Your task to perform on an android device: Go to wifi settings Image 0: 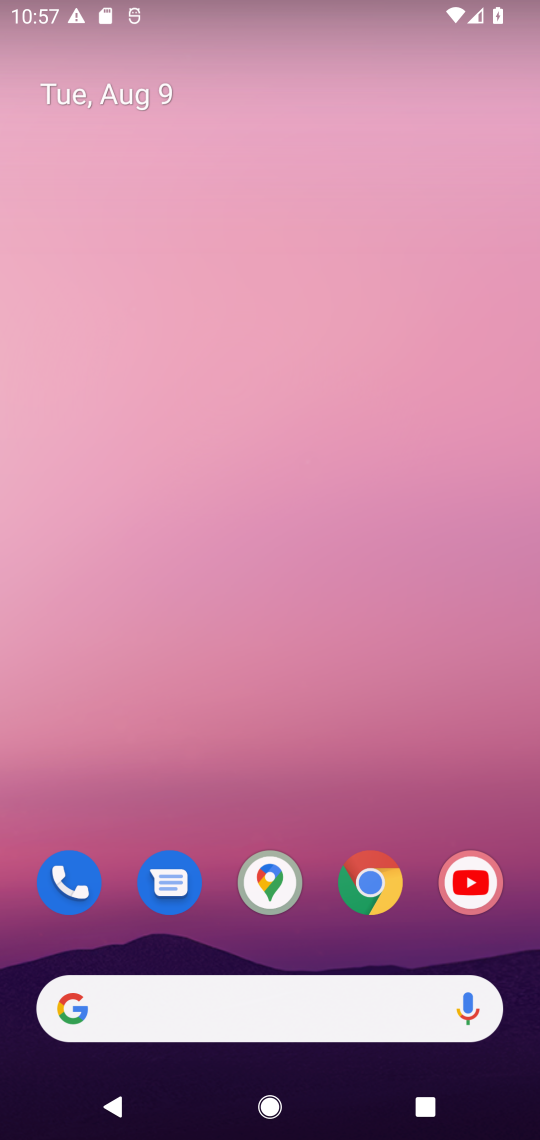
Step 0: press back button
Your task to perform on an android device: Go to wifi settings Image 1: 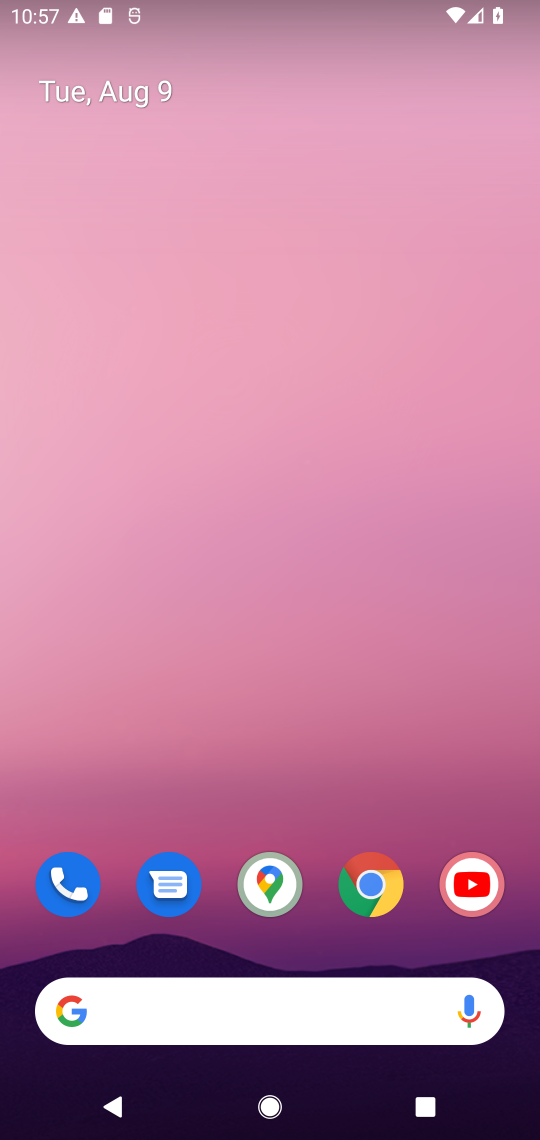
Step 1: drag from (240, 224) to (315, 308)
Your task to perform on an android device: Go to wifi settings Image 2: 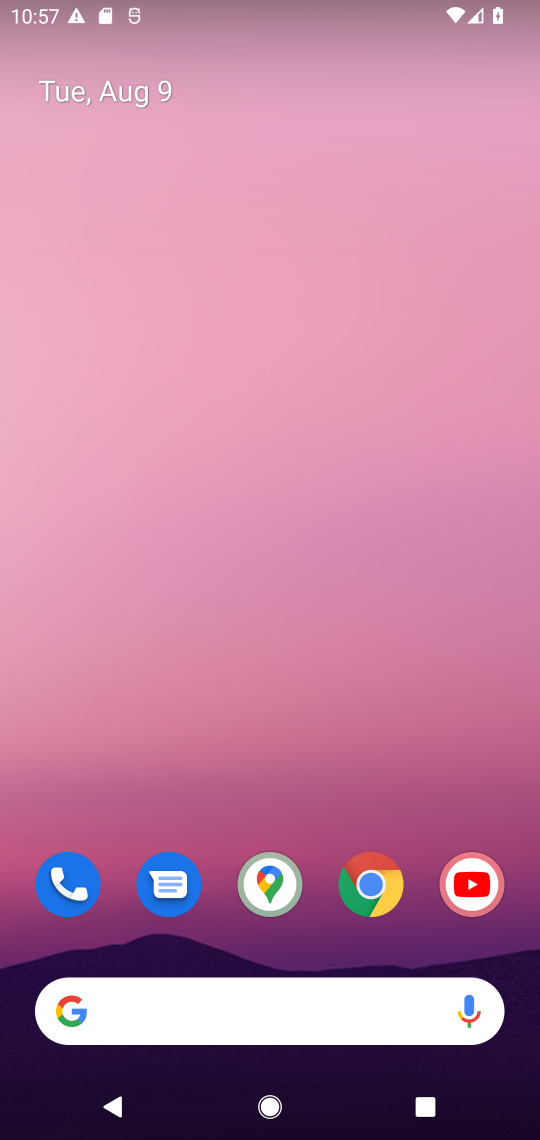
Step 2: drag from (325, 644) to (281, 273)
Your task to perform on an android device: Go to wifi settings Image 3: 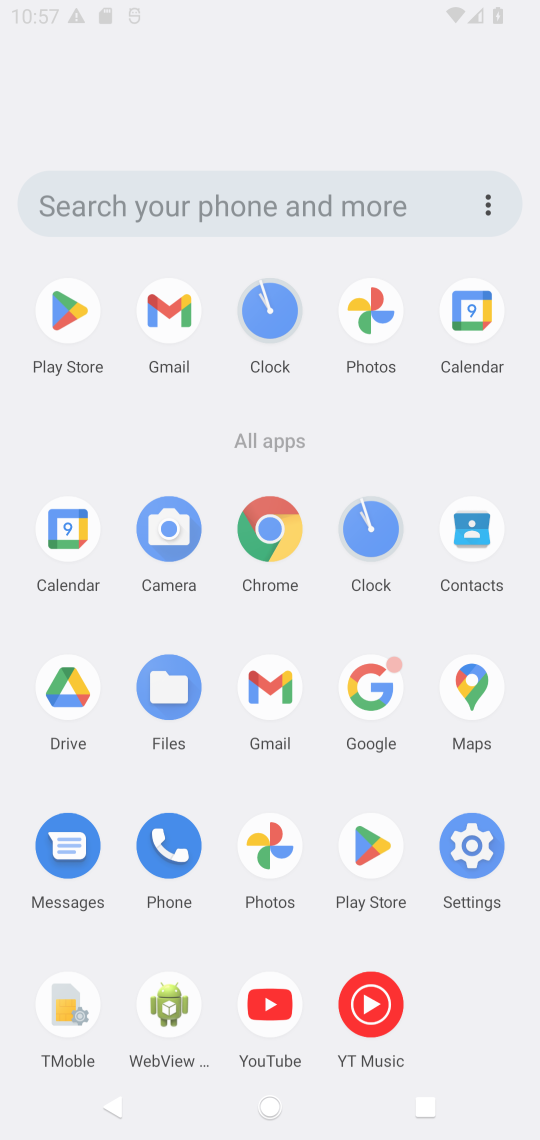
Step 3: drag from (314, 771) to (234, 345)
Your task to perform on an android device: Go to wifi settings Image 4: 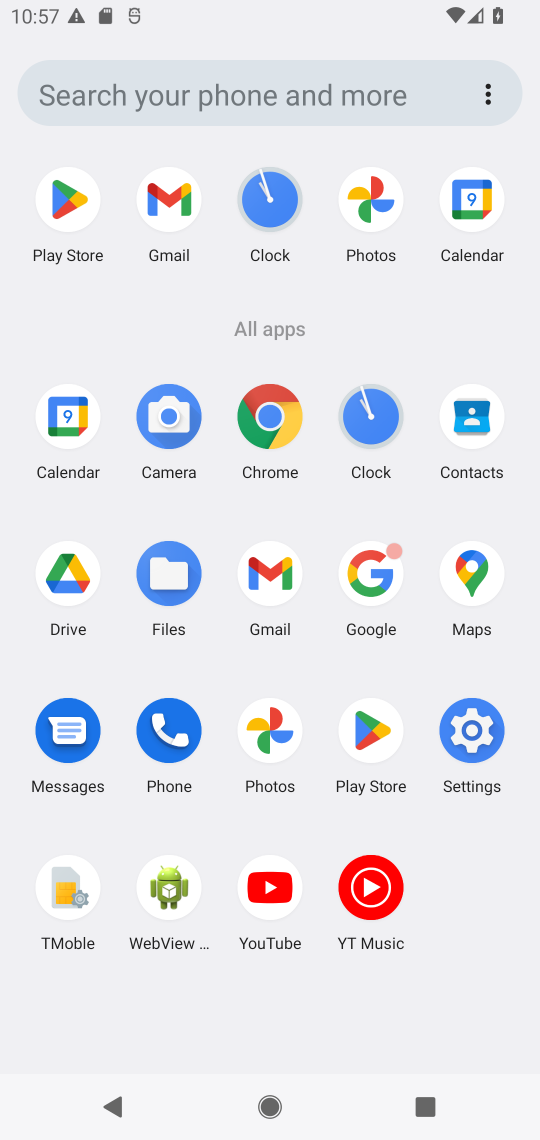
Step 4: click (461, 716)
Your task to perform on an android device: Go to wifi settings Image 5: 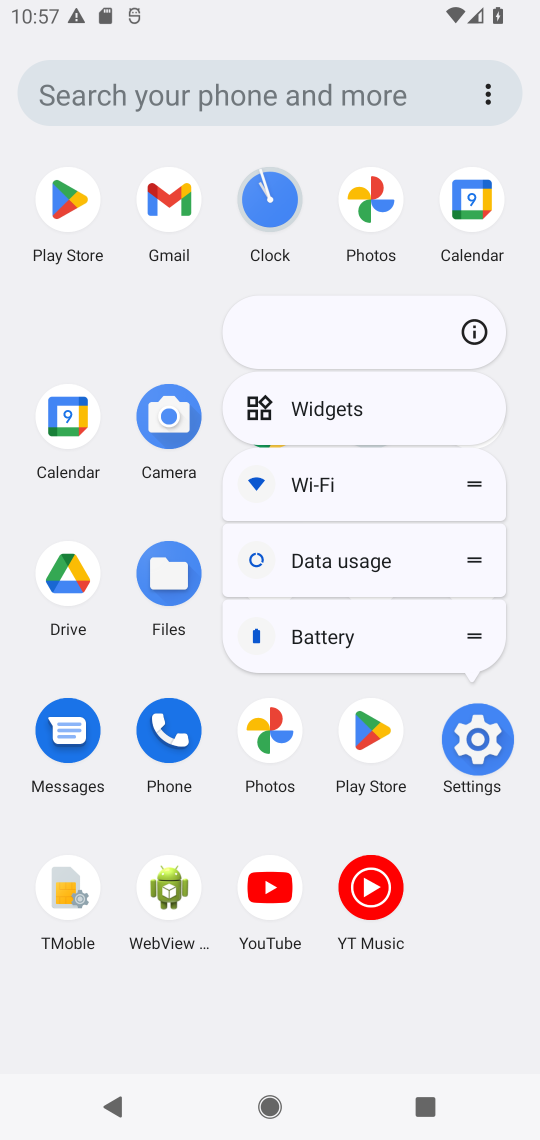
Step 5: click (466, 727)
Your task to perform on an android device: Go to wifi settings Image 6: 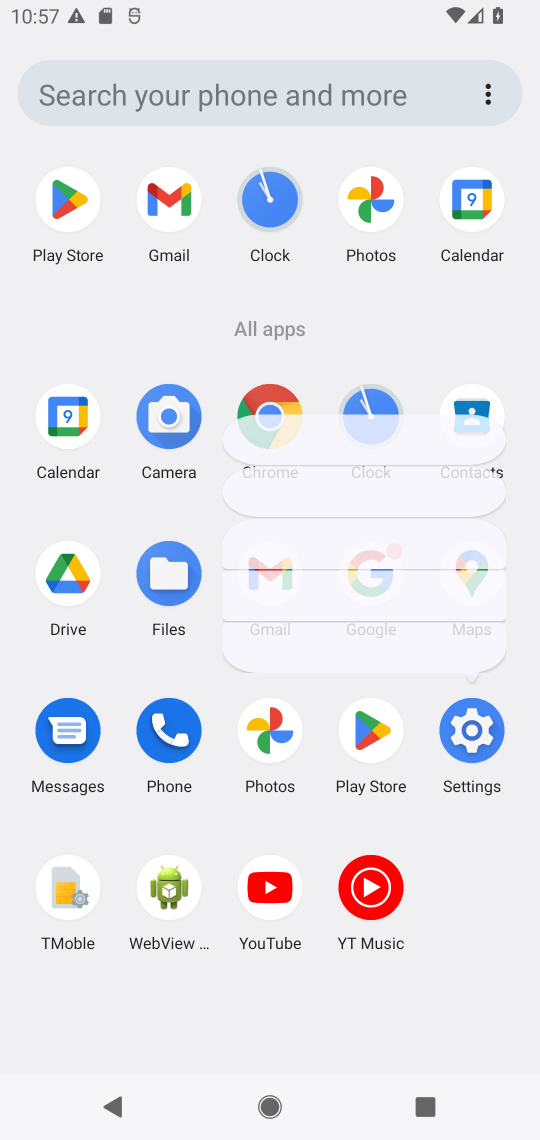
Step 6: click (475, 735)
Your task to perform on an android device: Go to wifi settings Image 7: 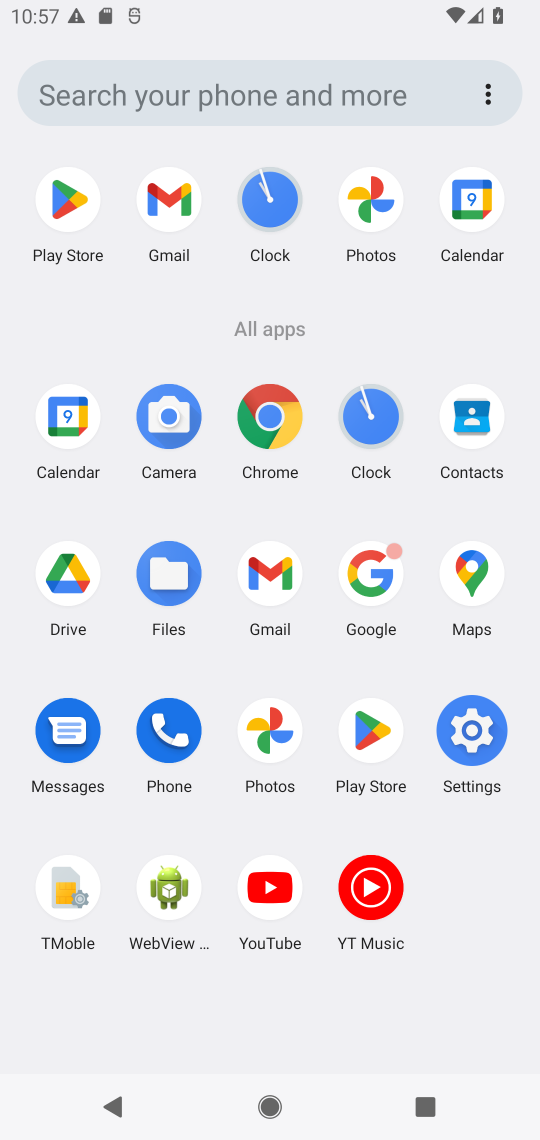
Step 7: click (490, 737)
Your task to perform on an android device: Go to wifi settings Image 8: 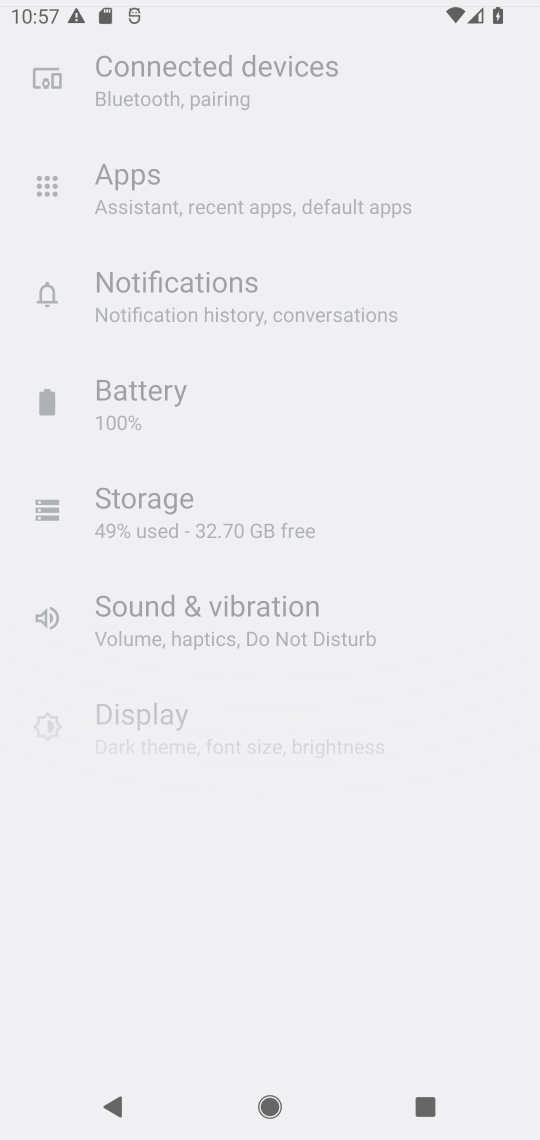
Step 8: click (503, 765)
Your task to perform on an android device: Go to wifi settings Image 9: 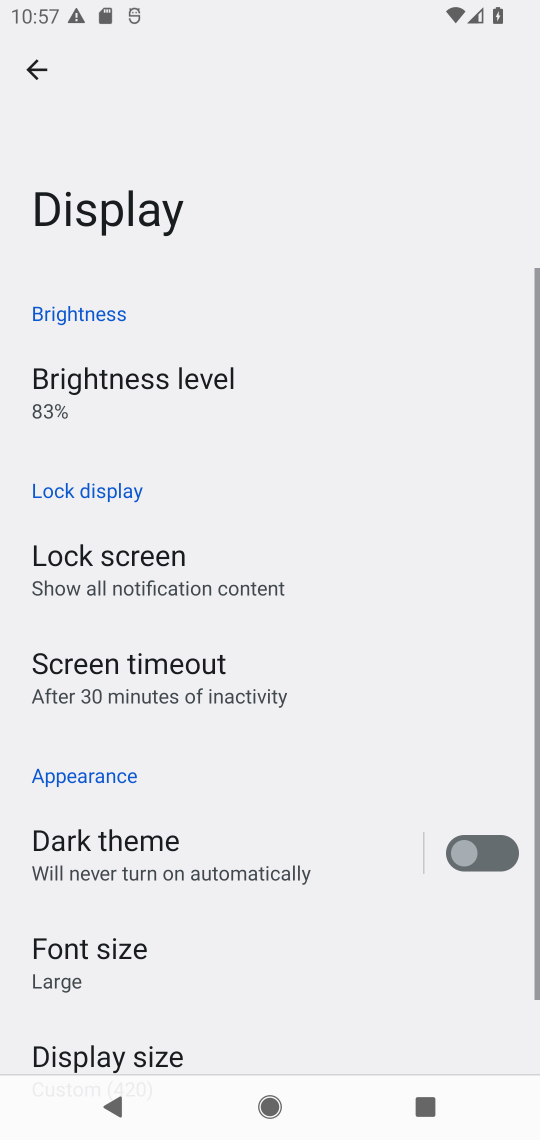
Step 9: drag from (122, 282) to (172, 883)
Your task to perform on an android device: Go to wifi settings Image 10: 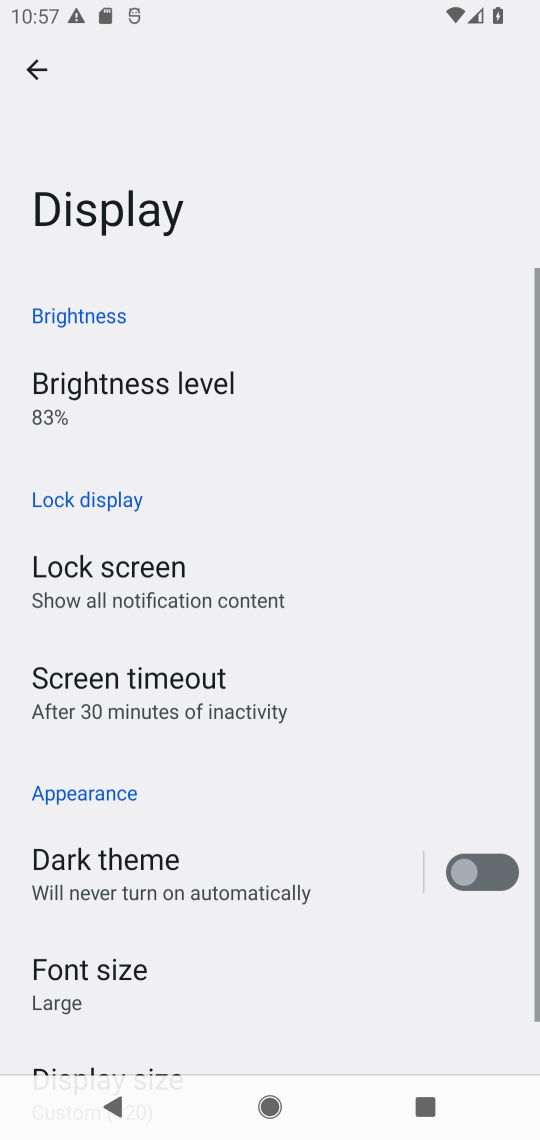
Step 10: click (44, 65)
Your task to perform on an android device: Go to wifi settings Image 11: 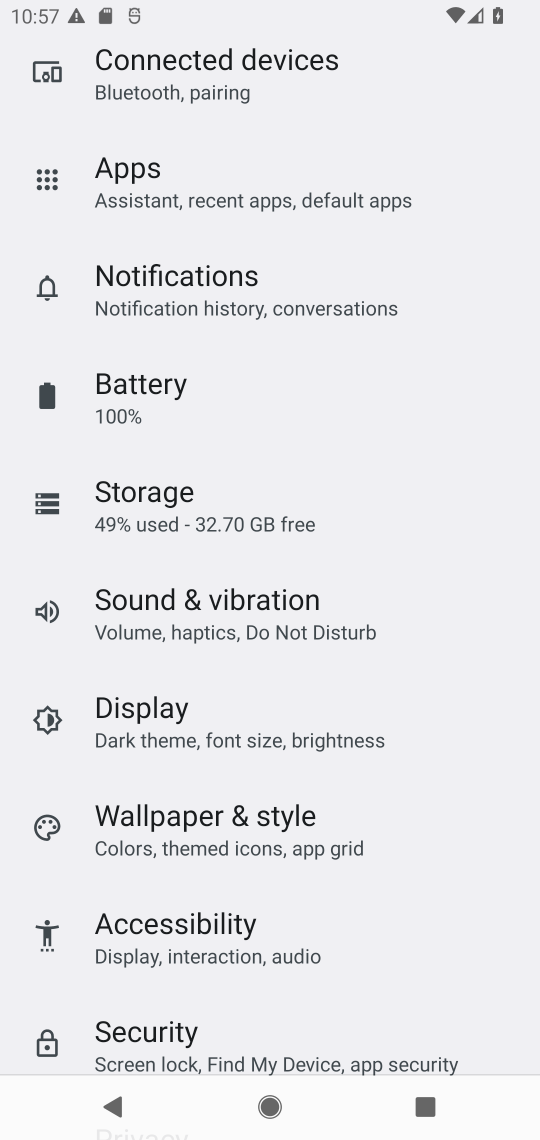
Step 11: task complete